Your task to perform on an android device: turn smart compose on in the gmail app Image 0: 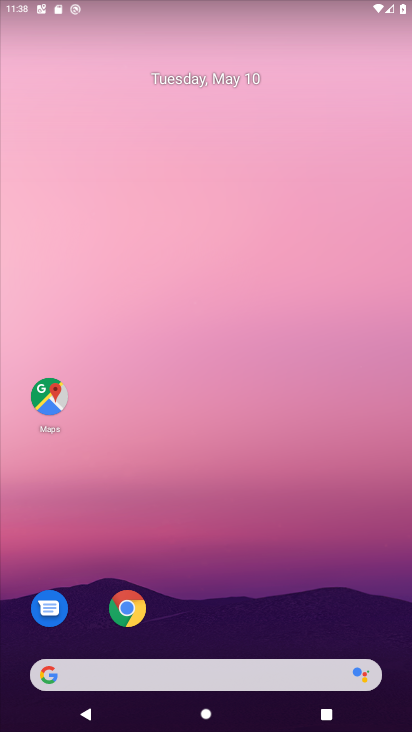
Step 0: drag from (197, 664) to (146, 124)
Your task to perform on an android device: turn smart compose on in the gmail app Image 1: 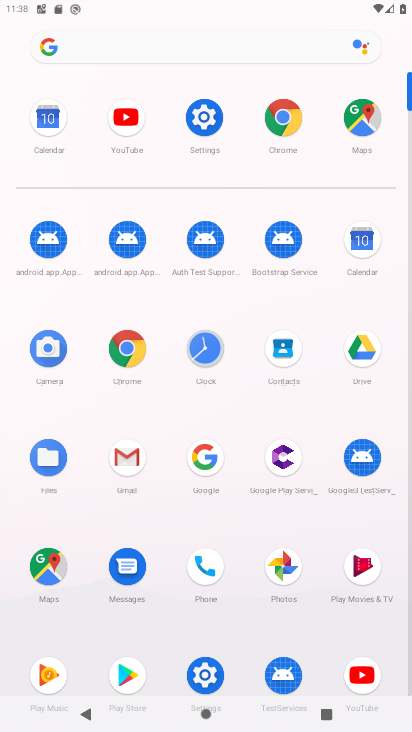
Step 1: click (124, 447)
Your task to perform on an android device: turn smart compose on in the gmail app Image 2: 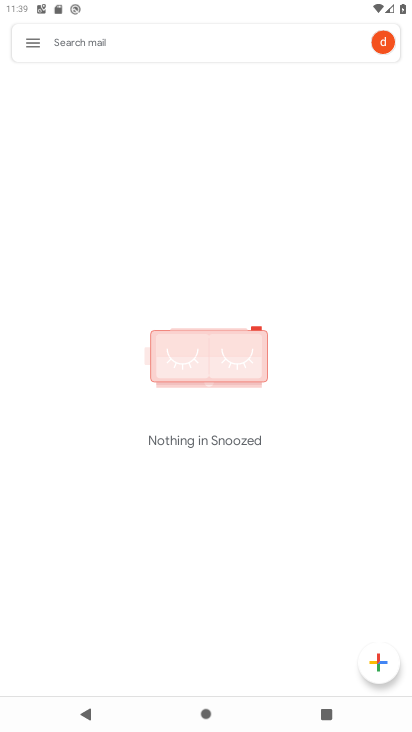
Step 2: click (27, 36)
Your task to perform on an android device: turn smart compose on in the gmail app Image 3: 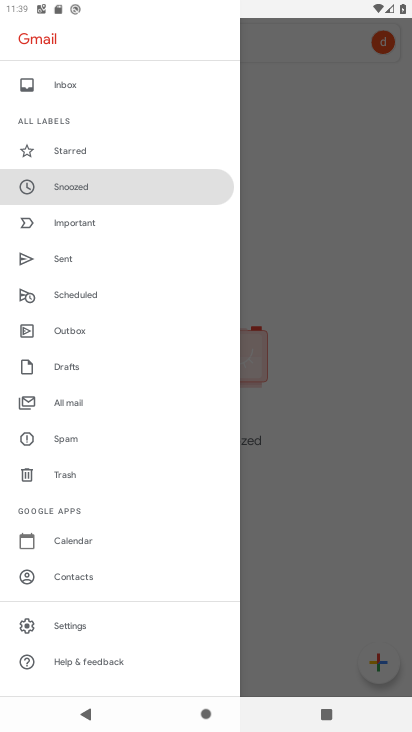
Step 3: click (78, 627)
Your task to perform on an android device: turn smart compose on in the gmail app Image 4: 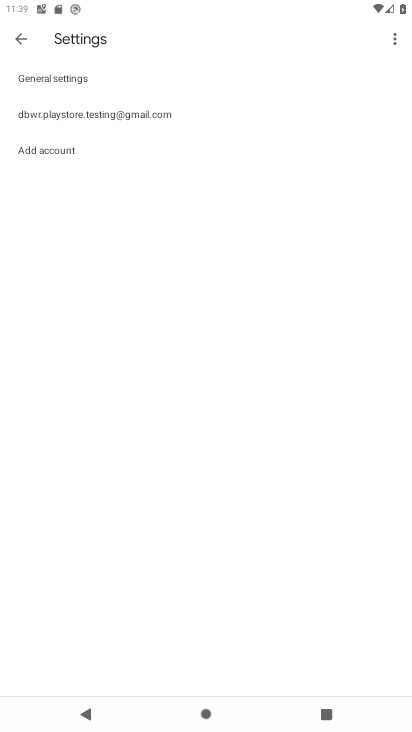
Step 4: click (87, 108)
Your task to perform on an android device: turn smart compose on in the gmail app Image 5: 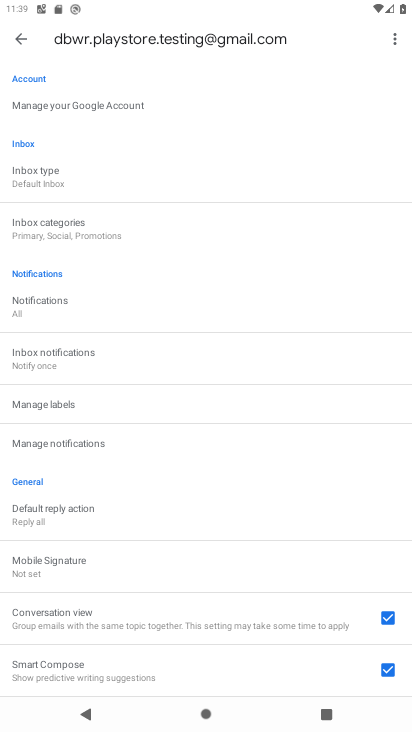
Step 5: task complete